Your task to perform on an android device: Open Wikipedia Image 0: 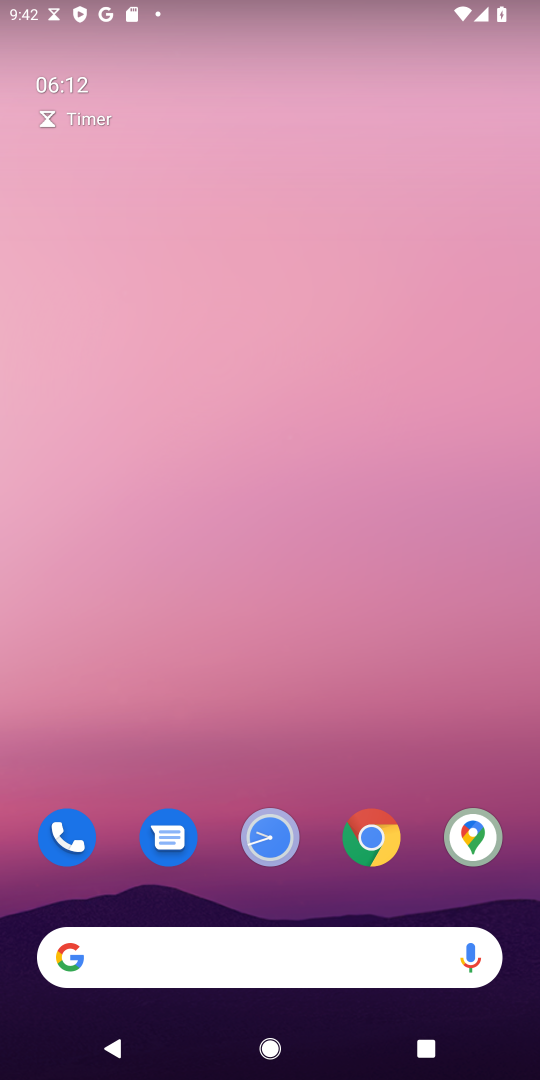
Step 0: click (375, 832)
Your task to perform on an android device: Open Wikipedia Image 1: 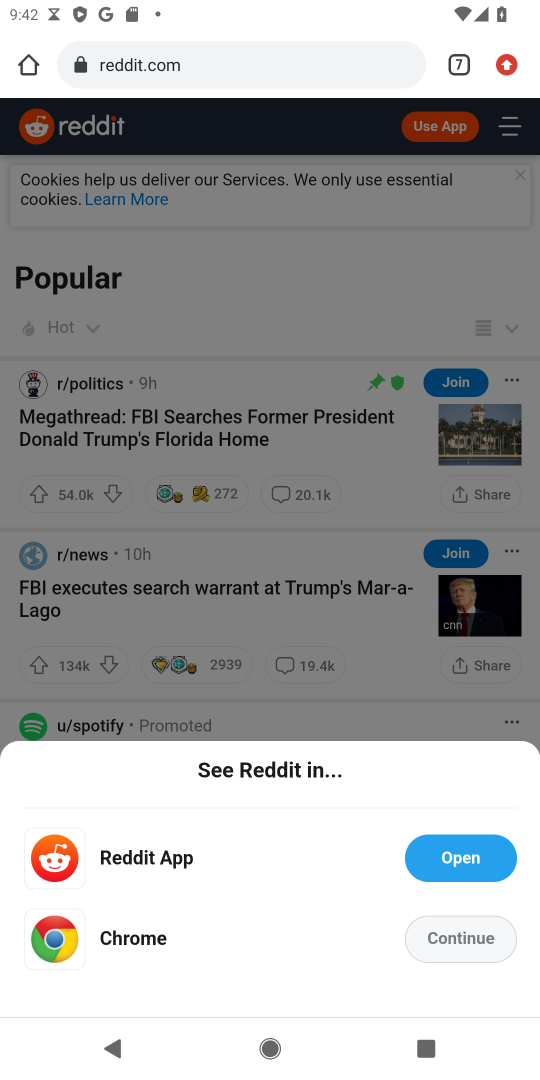
Step 1: click (515, 71)
Your task to perform on an android device: Open Wikipedia Image 2: 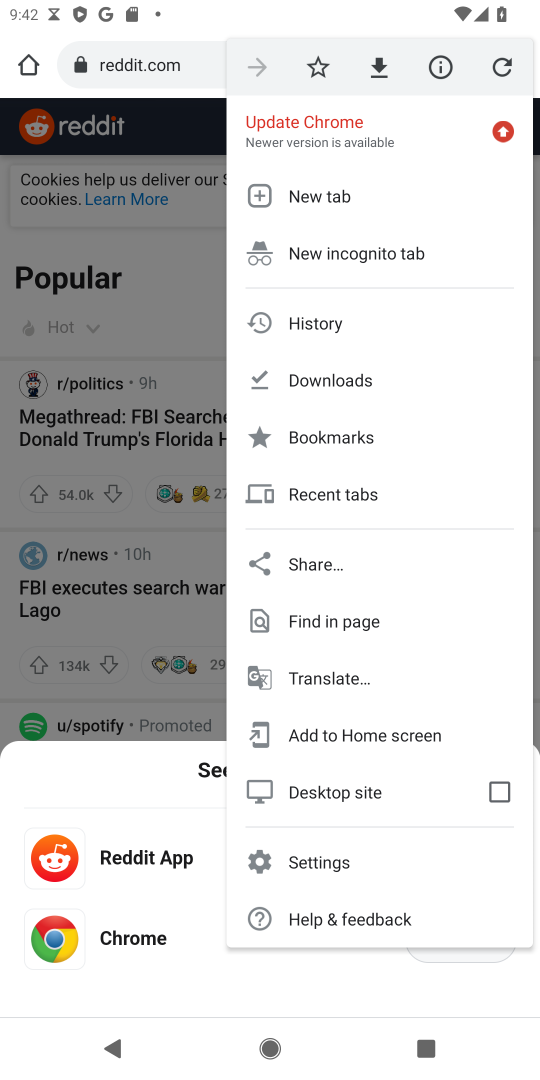
Step 2: click (331, 196)
Your task to perform on an android device: Open Wikipedia Image 3: 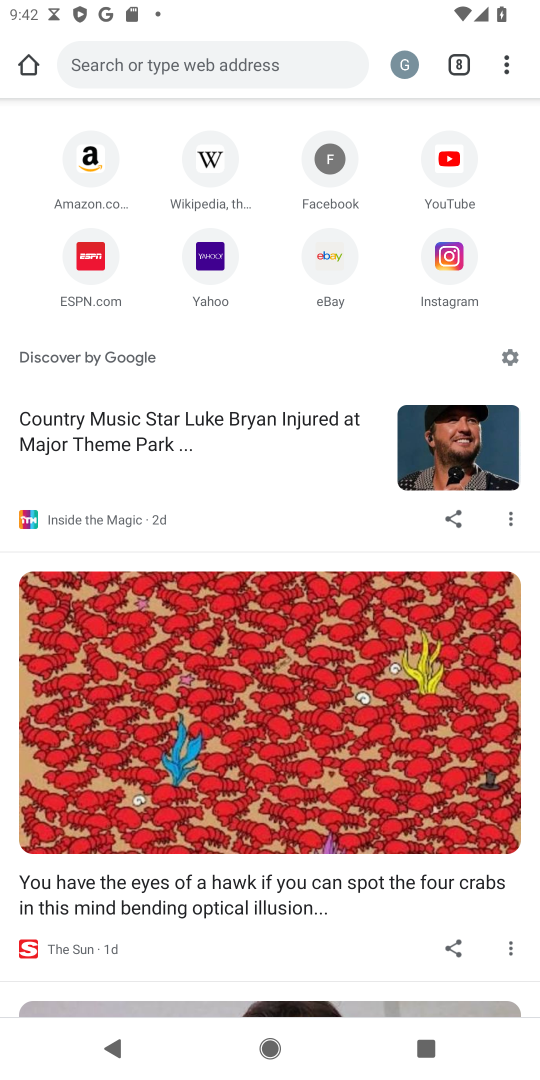
Step 3: click (216, 159)
Your task to perform on an android device: Open Wikipedia Image 4: 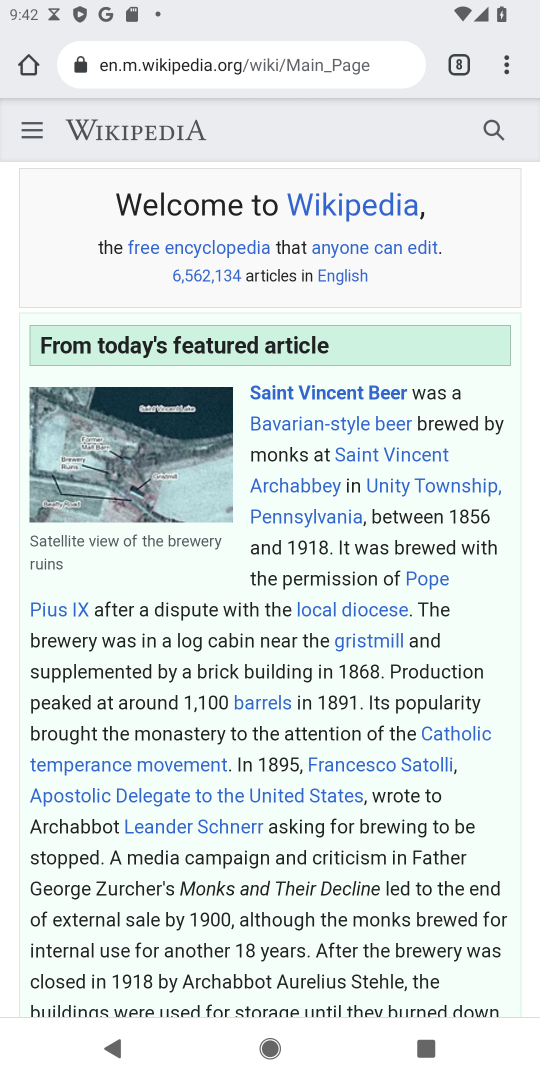
Step 4: task complete